Your task to perform on an android device: uninstall "WhatsApp Messenger" Image 0: 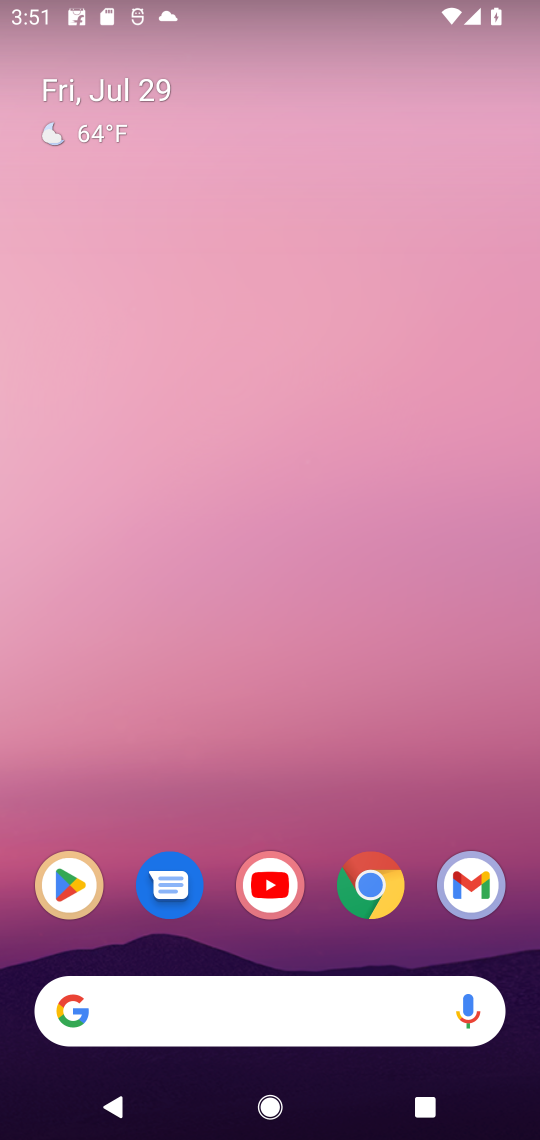
Step 0: click (95, 901)
Your task to perform on an android device: uninstall "WhatsApp Messenger" Image 1: 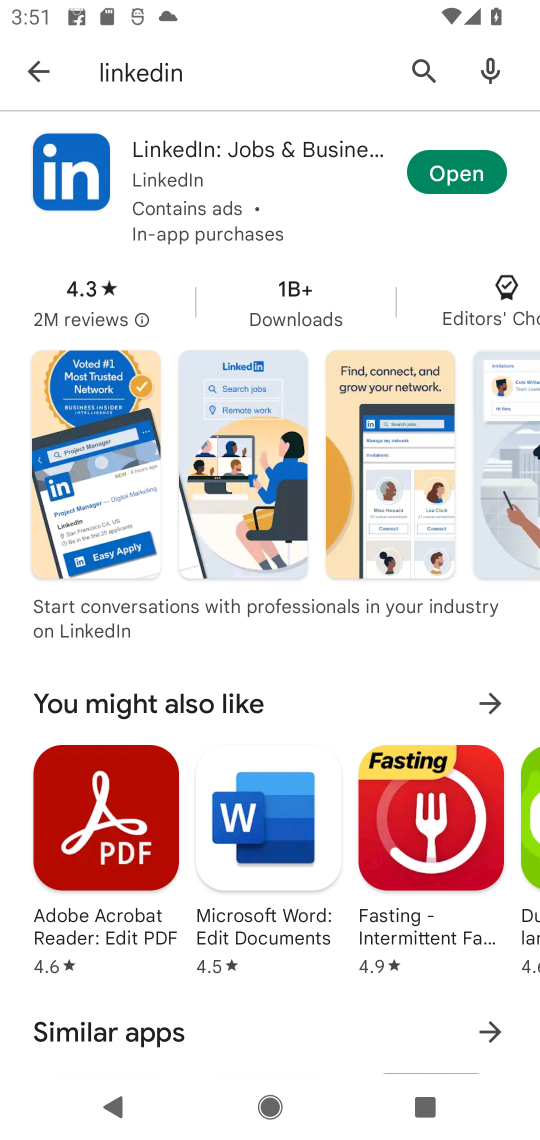
Step 1: click (417, 66)
Your task to perform on an android device: uninstall "WhatsApp Messenger" Image 2: 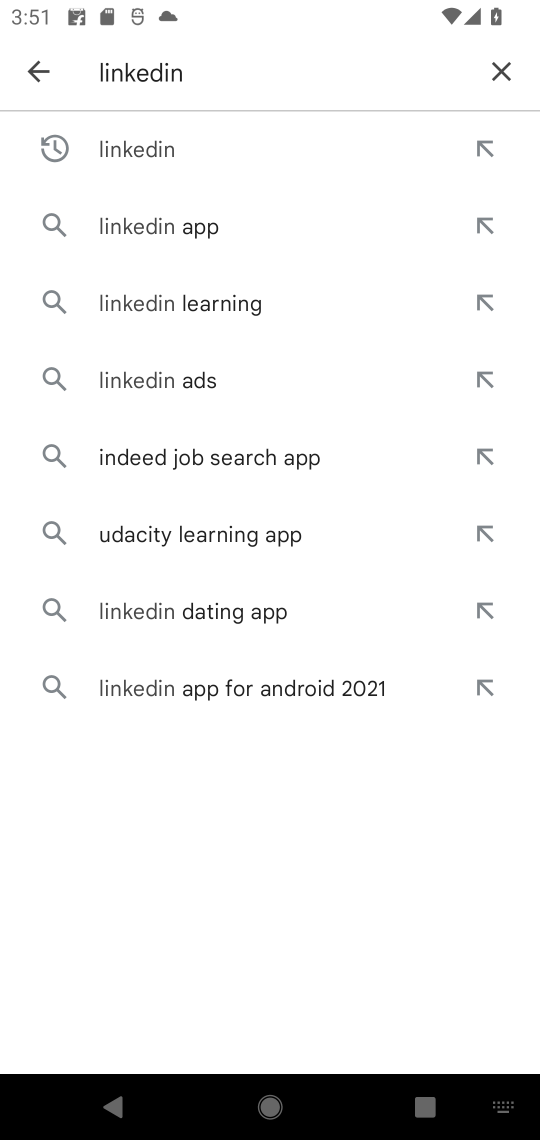
Step 2: click (506, 73)
Your task to perform on an android device: uninstall "WhatsApp Messenger" Image 3: 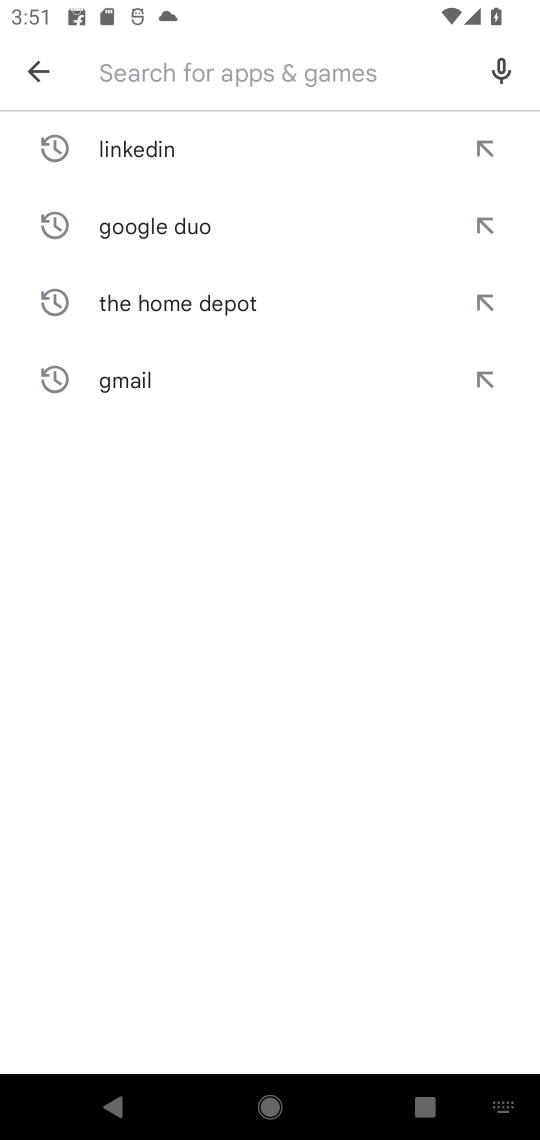
Step 3: click (384, 70)
Your task to perform on an android device: uninstall "WhatsApp Messenger" Image 4: 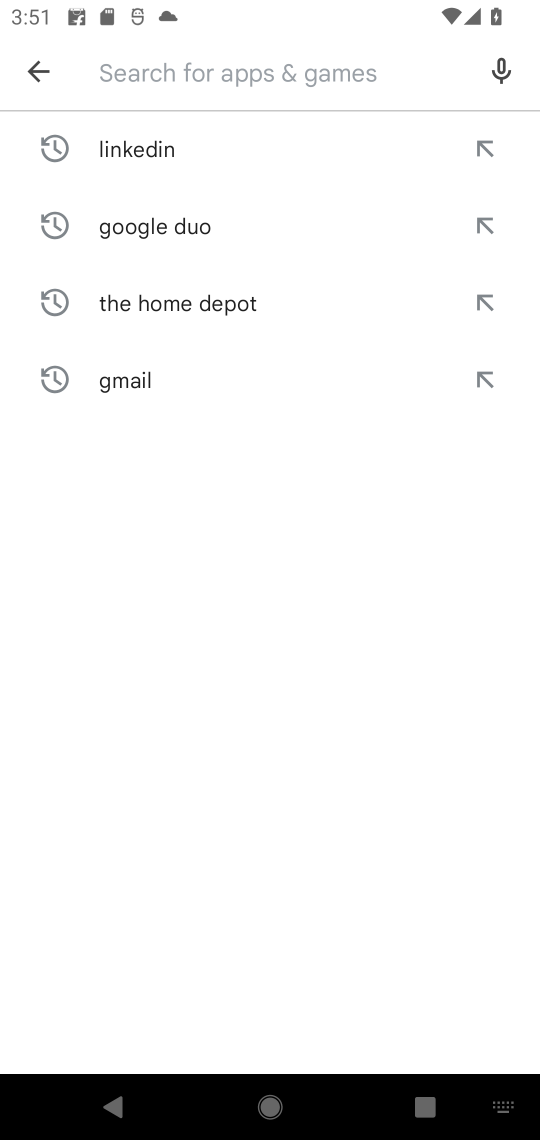
Step 4: type "WhatsApp Messenger"
Your task to perform on an android device: uninstall "WhatsApp Messenger" Image 5: 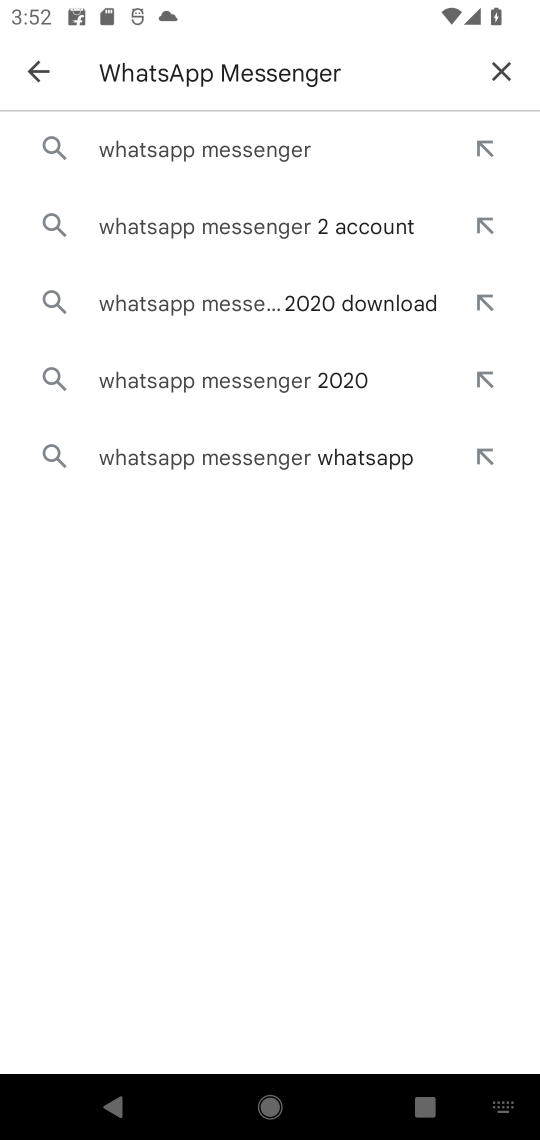
Step 5: click (154, 149)
Your task to perform on an android device: uninstall "WhatsApp Messenger" Image 6: 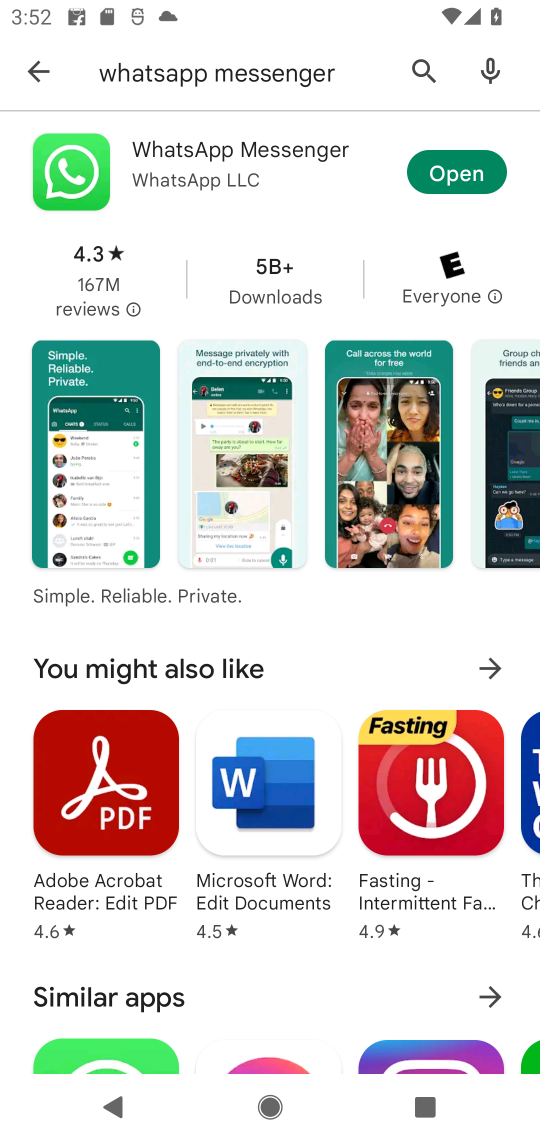
Step 6: click (160, 177)
Your task to perform on an android device: uninstall "WhatsApp Messenger" Image 7: 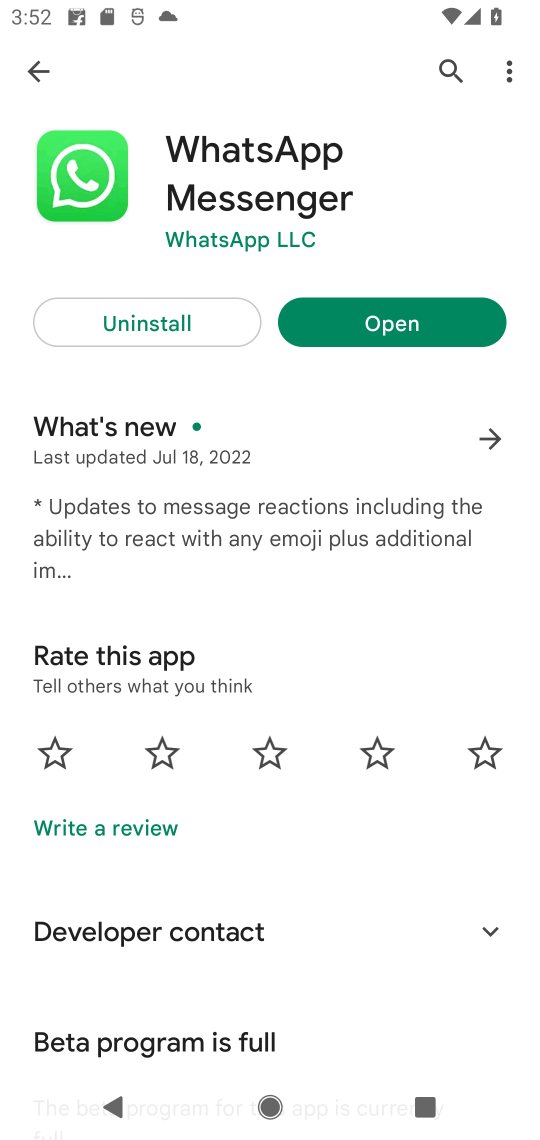
Step 7: click (151, 320)
Your task to perform on an android device: uninstall "WhatsApp Messenger" Image 8: 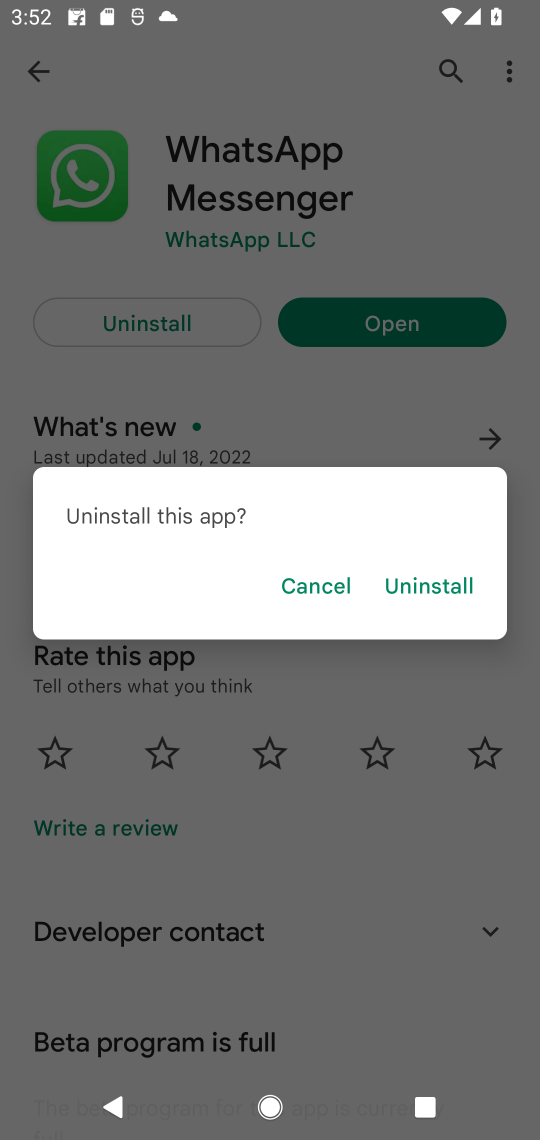
Step 8: click (407, 583)
Your task to perform on an android device: uninstall "WhatsApp Messenger" Image 9: 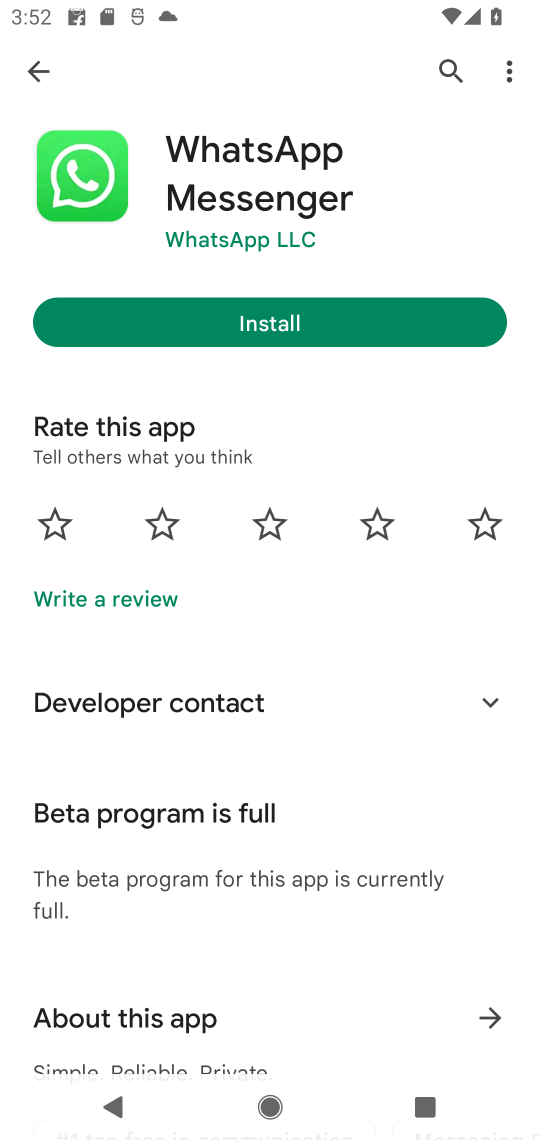
Step 9: task complete